Your task to perform on an android device: open app "Upside-Cash back on gas & food" (install if not already installed) Image 0: 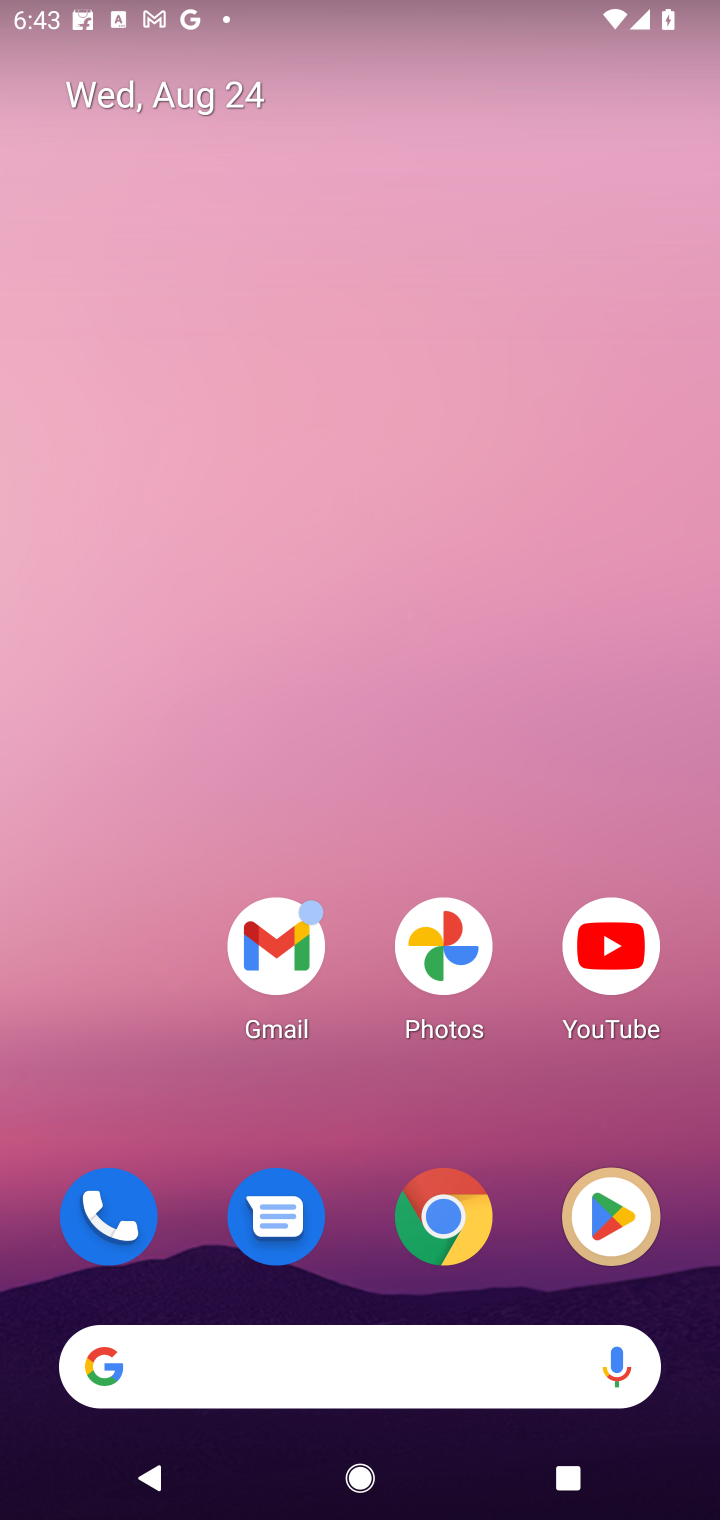
Step 0: click (597, 1220)
Your task to perform on an android device: open app "Upside-Cash back on gas & food" (install if not already installed) Image 1: 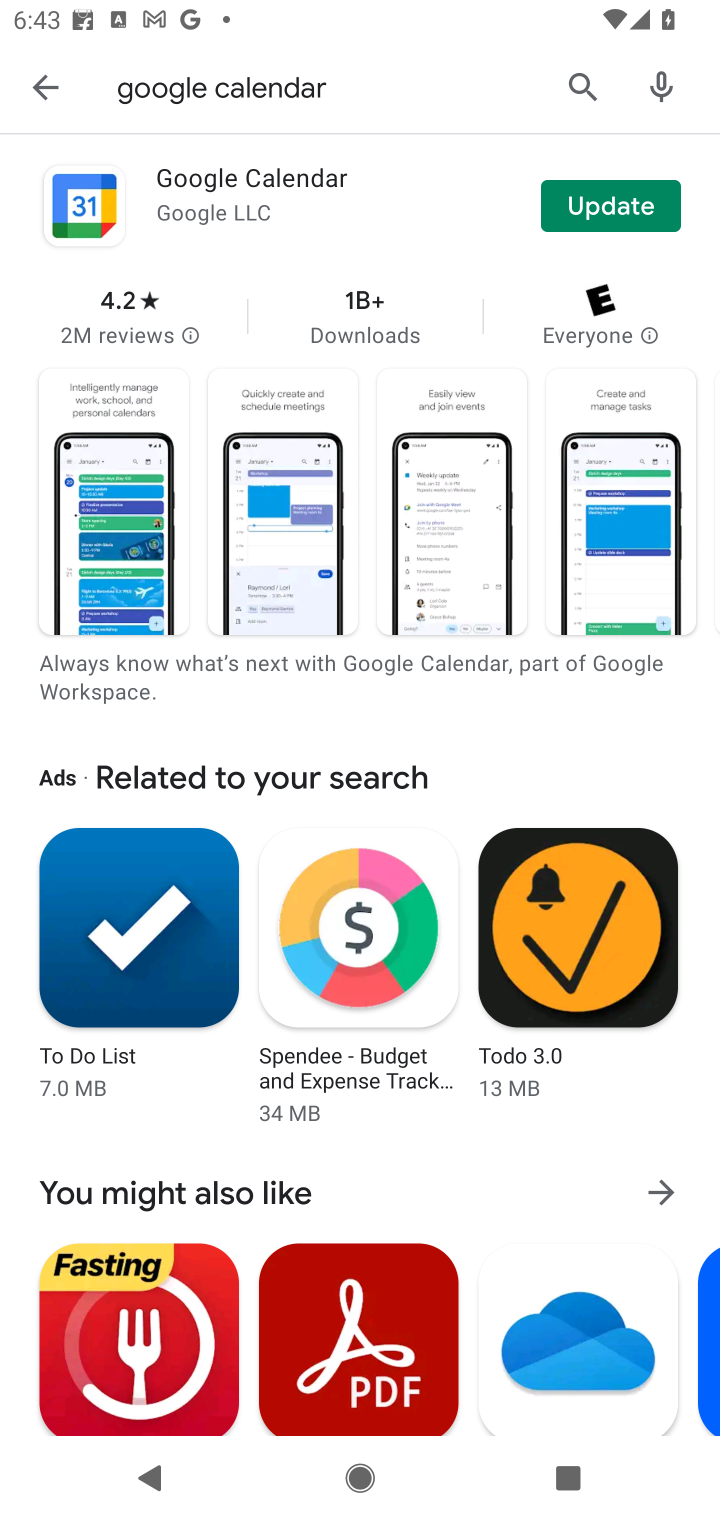
Step 1: click (573, 82)
Your task to perform on an android device: open app "Upside-Cash back on gas & food" (install if not already installed) Image 2: 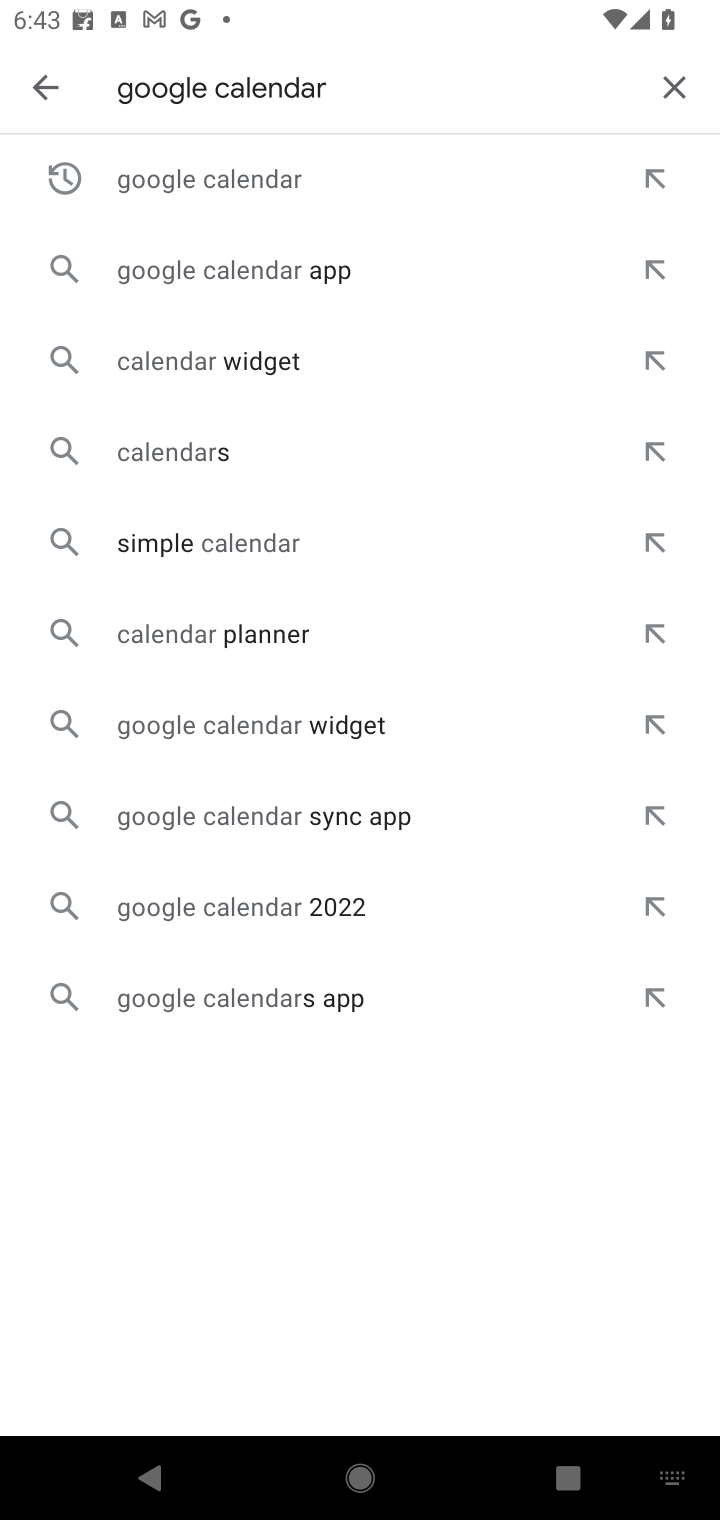
Step 2: click (654, 82)
Your task to perform on an android device: open app "Upside-Cash back on gas & food" (install if not already installed) Image 3: 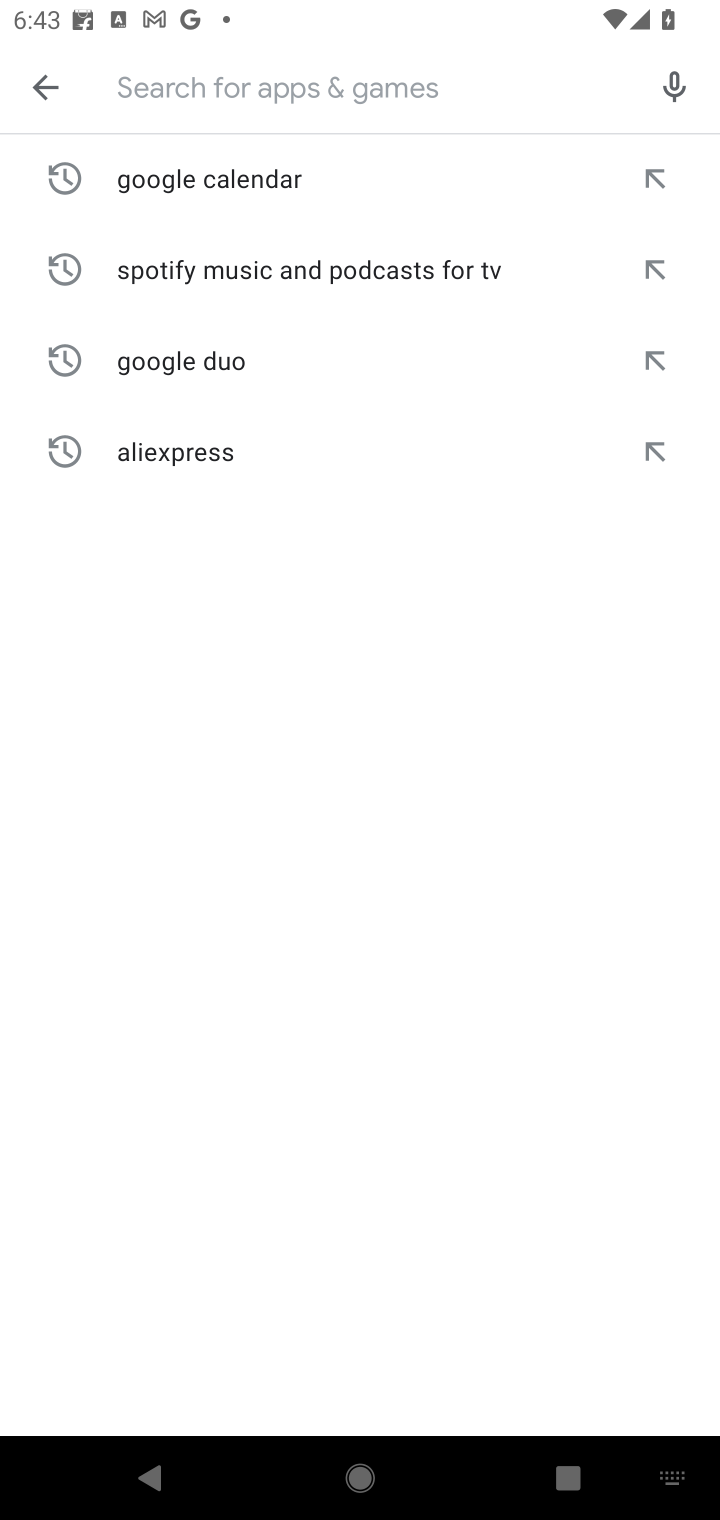
Step 3: type "Upside-Cash back on gas & food"
Your task to perform on an android device: open app "Upside-Cash back on gas & food" (install if not already installed) Image 4: 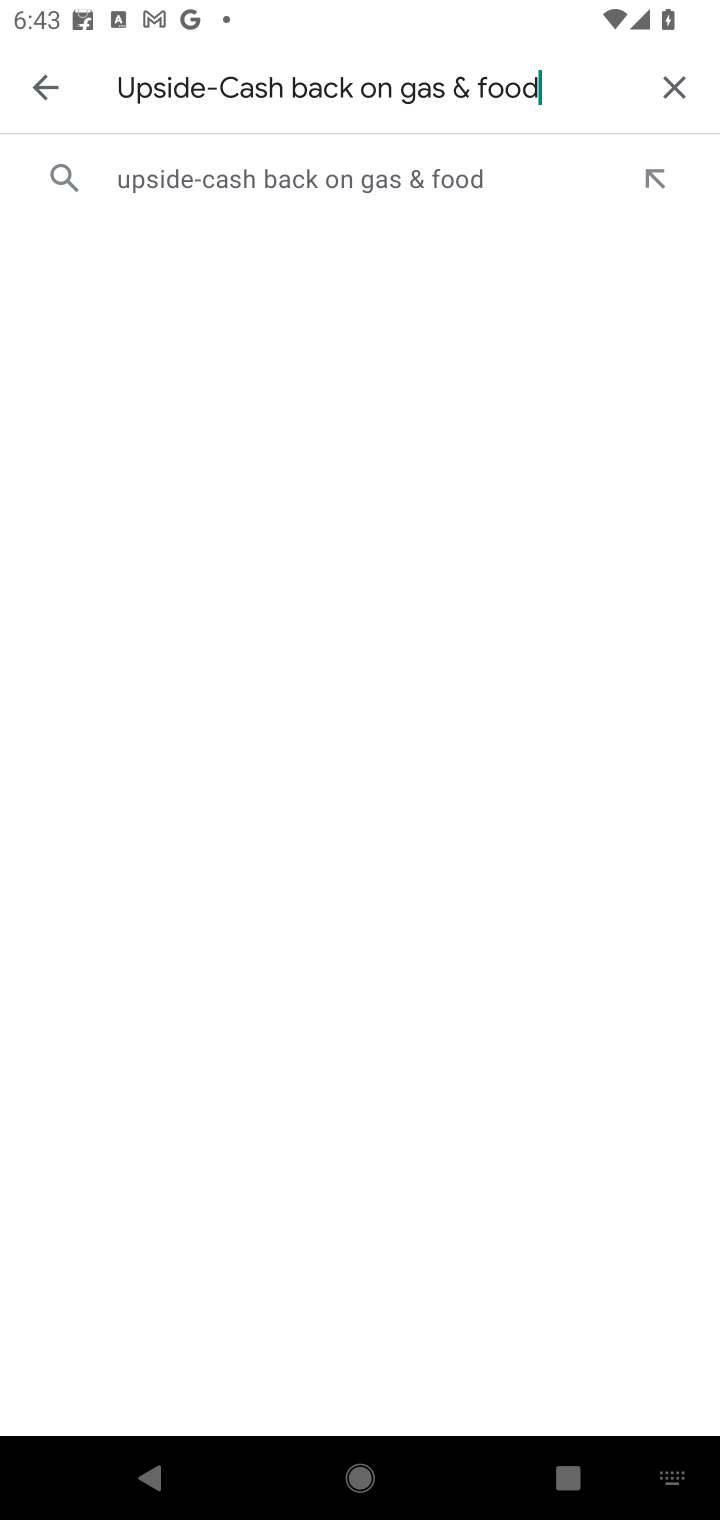
Step 4: click (339, 195)
Your task to perform on an android device: open app "Upside-Cash back on gas & food" (install if not already installed) Image 5: 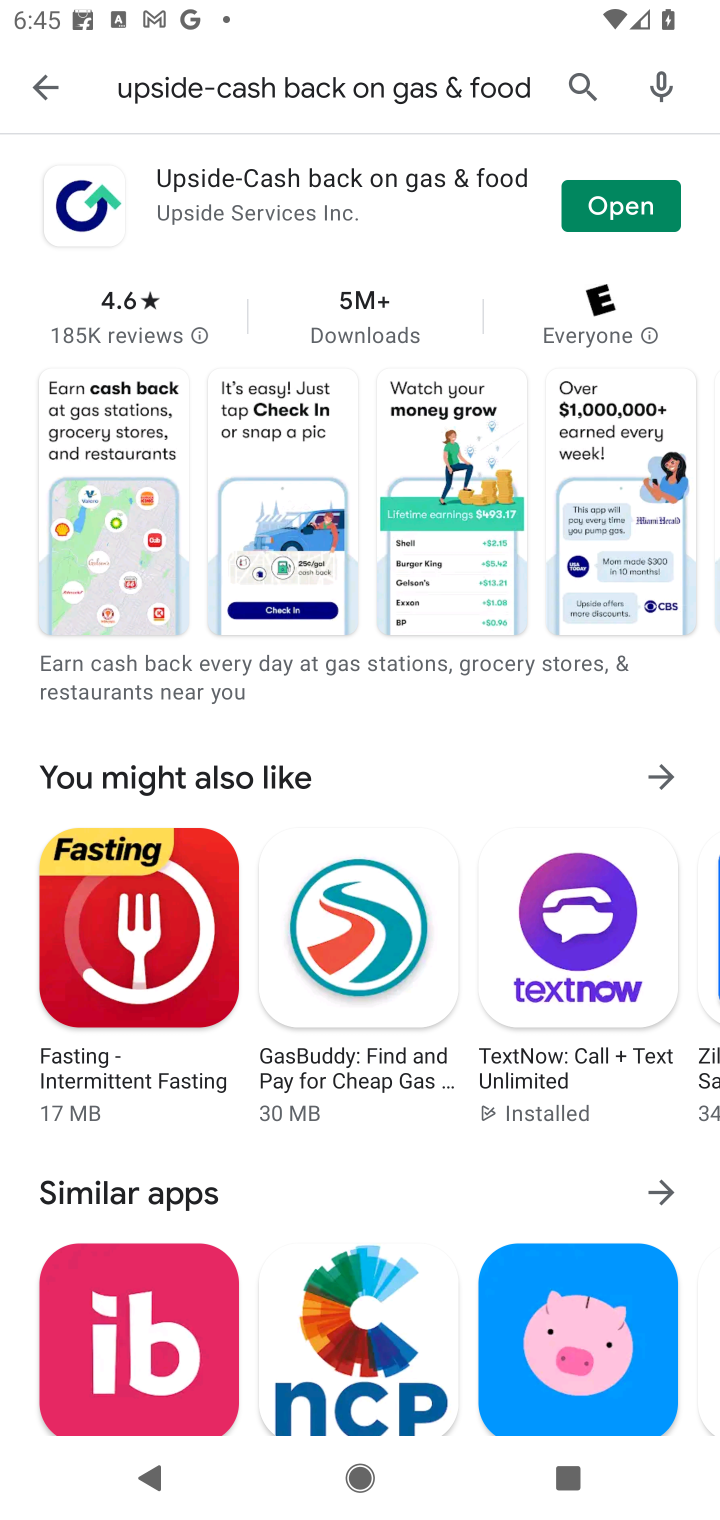
Step 5: click (599, 208)
Your task to perform on an android device: open app "Upside-Cash back on gas & food" (install if not already installed) Image 6: 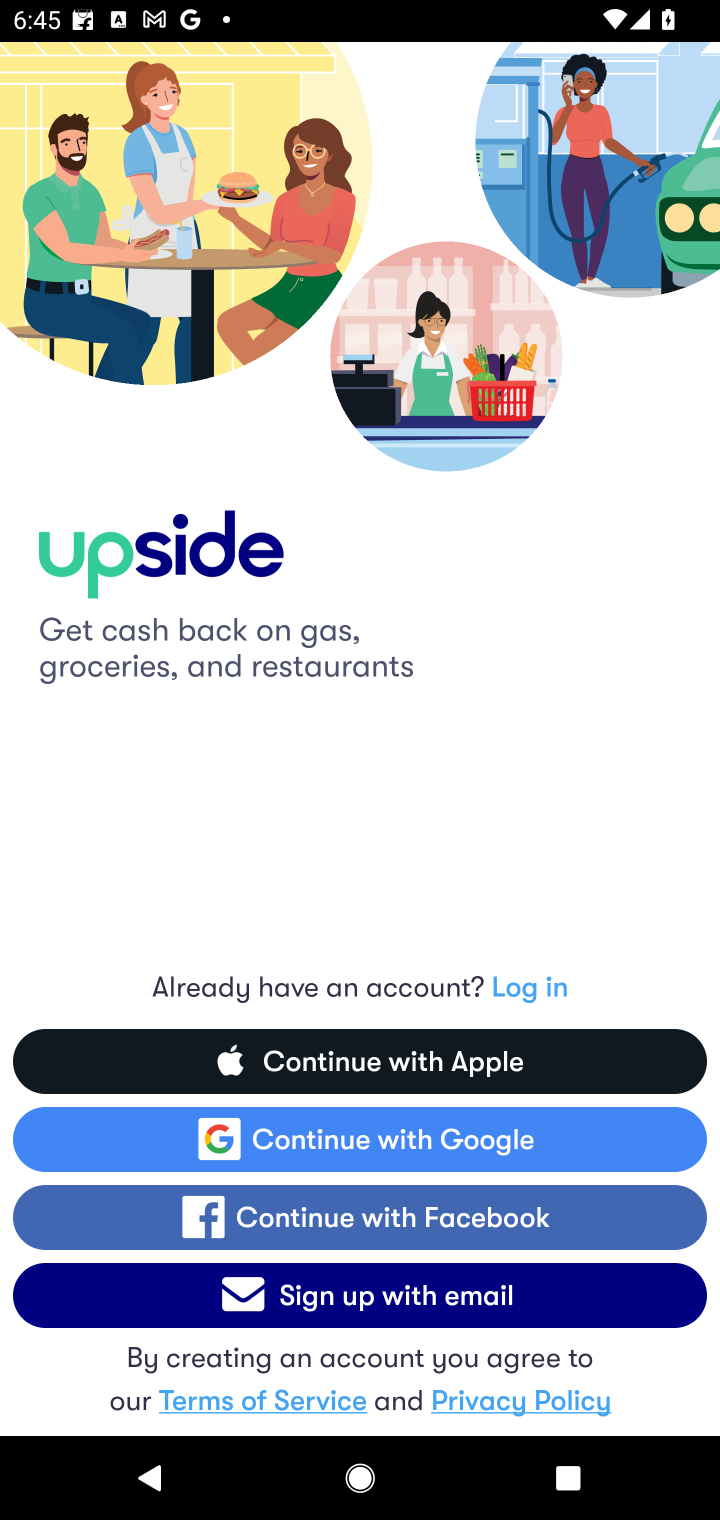
Step 6: task complete